Your task to perform on an android device: Show the shopping cart on costco.com. Add duracell triple a to the cart on costco.com Image 0: 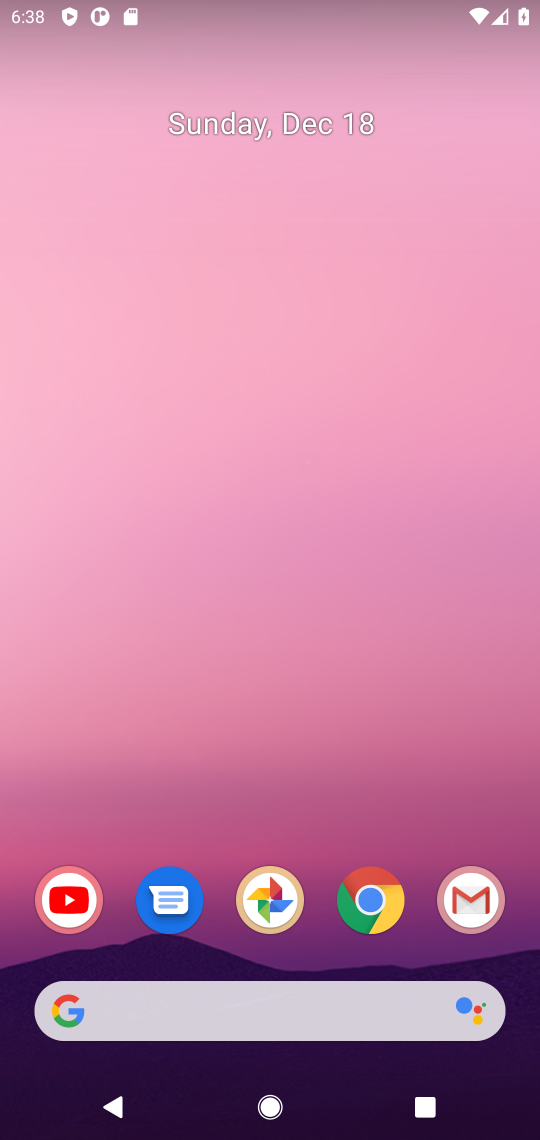
Step 0: click (373, 896)
Your task to perform on an android device: Show the shopping cart on costco.com. Add duracell triple a to the cart on costco.com Image 1: 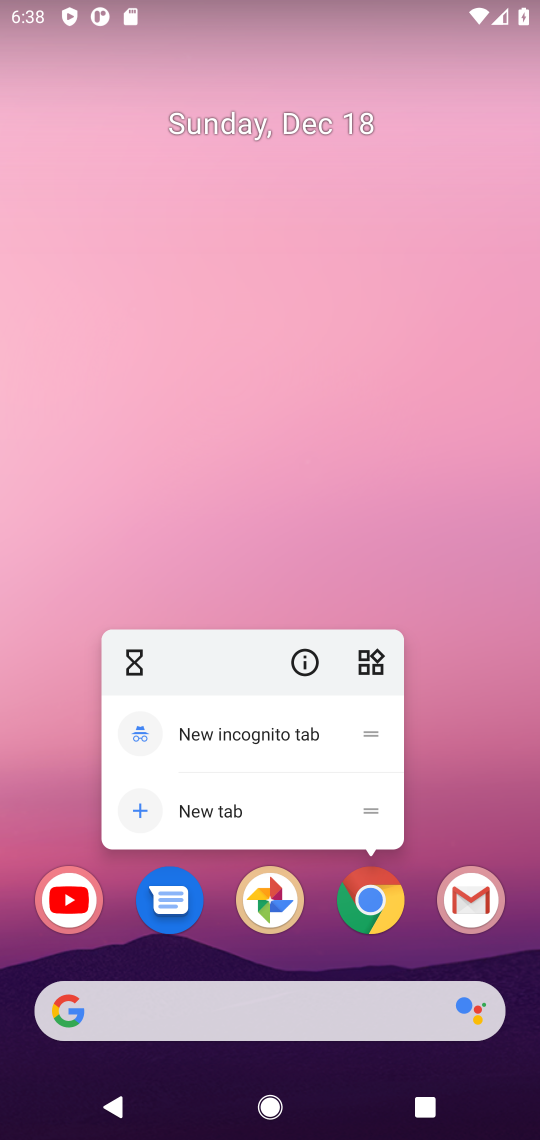
Step 1: click (371, 911)
Your task to perform on an android device: Show the shopping cart on costco.com. Add duracell triple a to the cart on costco.com Image 2: 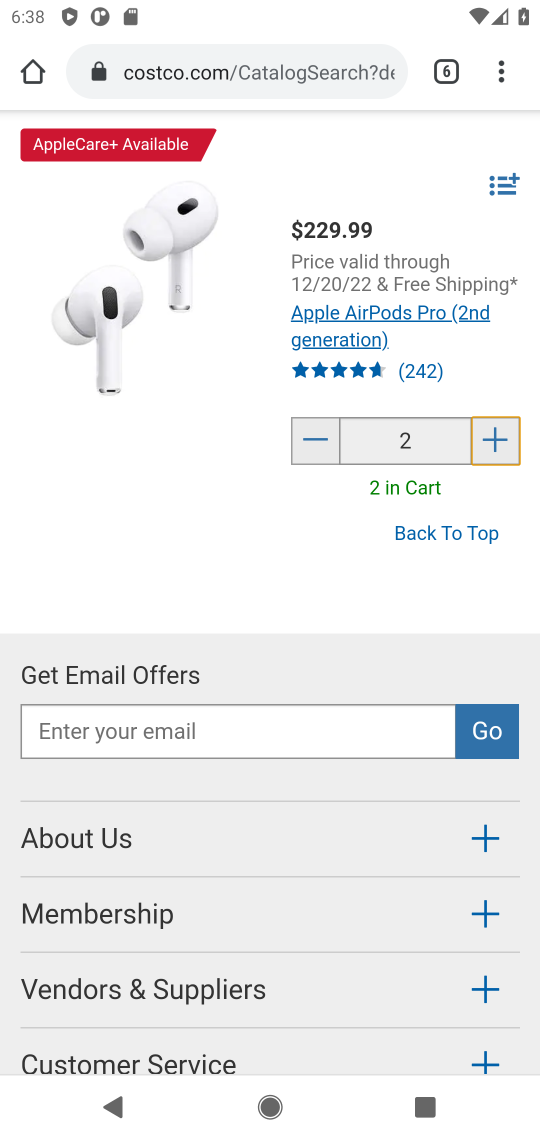
Step 2: drag from (362, 164) to (434, 690)
Your task to perform on an android device: Show the shopping cart on costco.com. Add duracell triple a to the cart on costco.com Image 3: 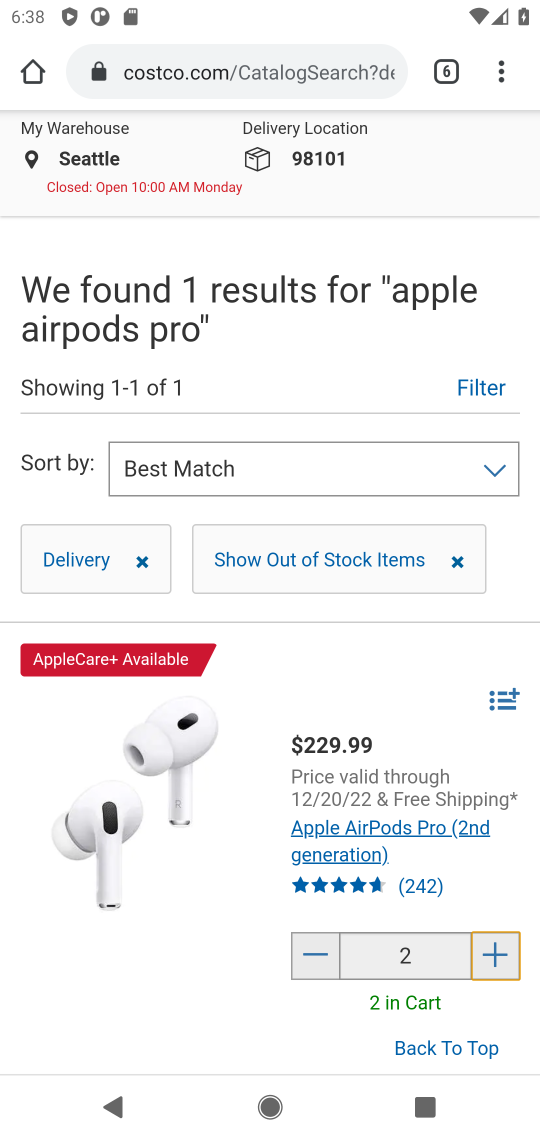
Step 3: drag from (446, 177) to (399, 580)
Your task to perform on an android device: Show the shopping cart on costco.com. Add duracell triple a to the cart on costco.com Image 4: 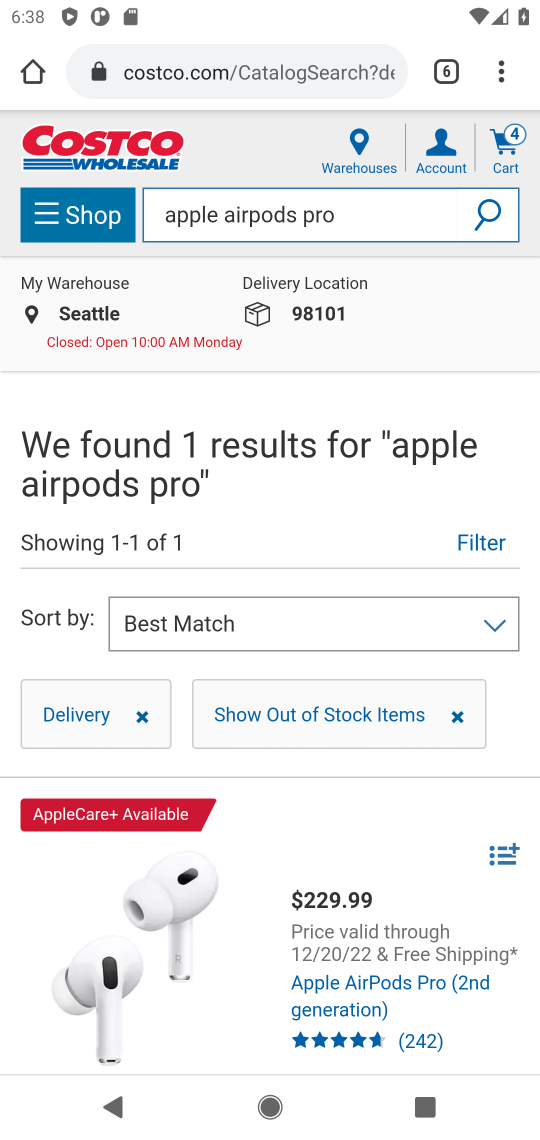
Step 4: click (504, 142)
Your task to perform on an android device: Show the shopping cart on costco.com. Add duracell triple a to the cart on costco.com Image 5: 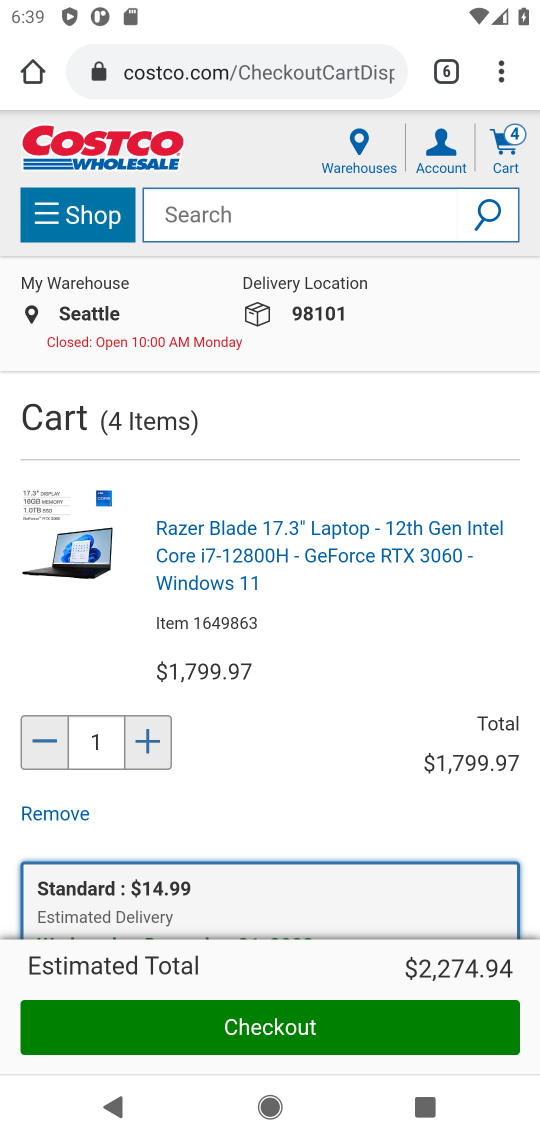
Step 5: click (224, 221)
Your task to perform on an android device: Show the shopping cart on costco.com. Add duracell triple a to the cart on costco.com Image 6: 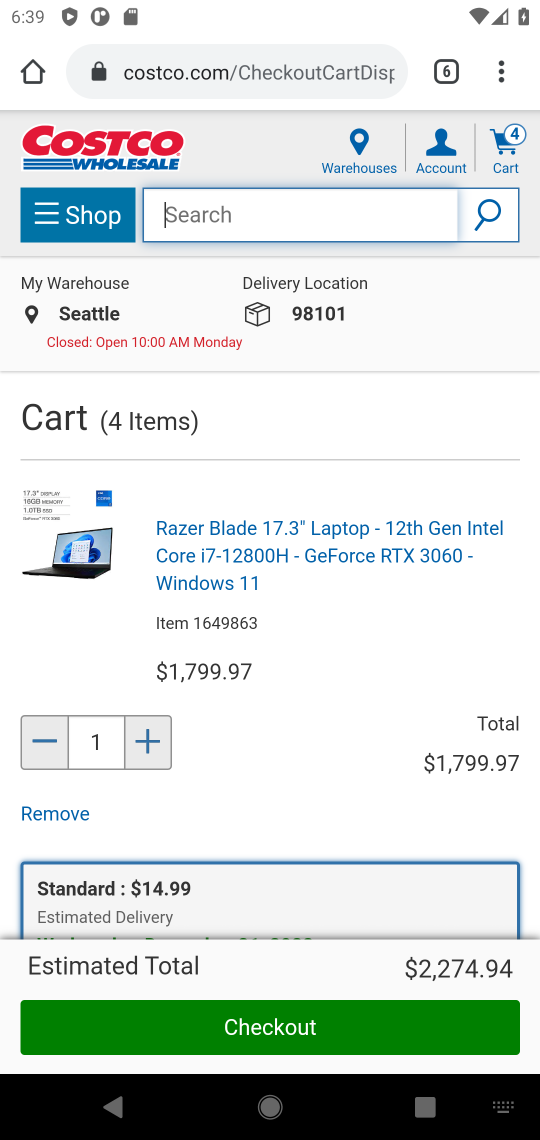
Step 6: type "duracell triple a"
Your task to perform on an android device: Show the shopping cart on costco.com. Add duracell triple a to the cart on costco.com Image 7: 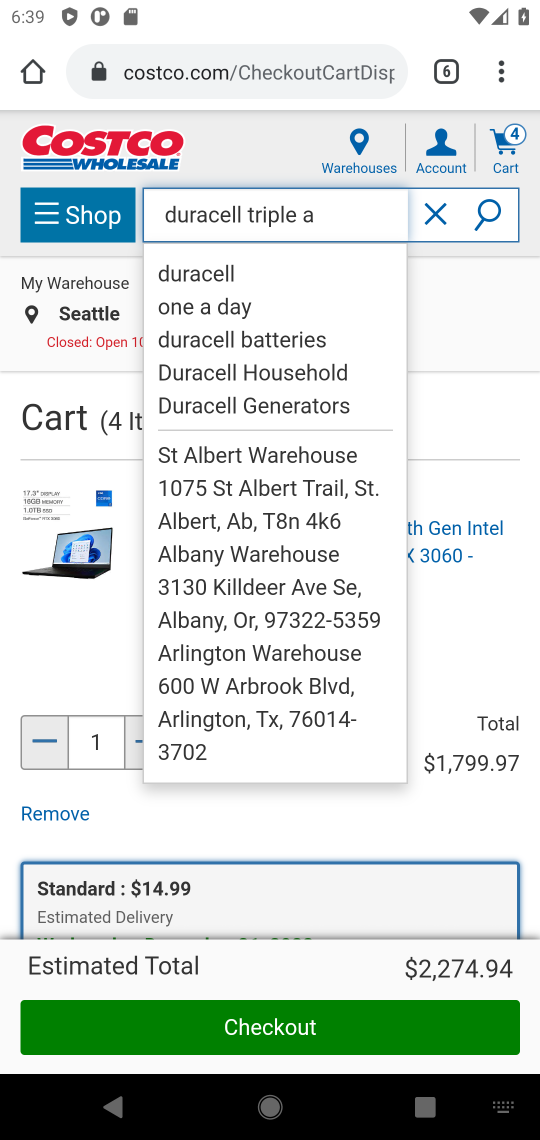
Step 7: click (485, 210)
Your task to perform on an android device: Show the shopping cart on costco.com. Add duracell triple a to the cart on costco.com Image 8: 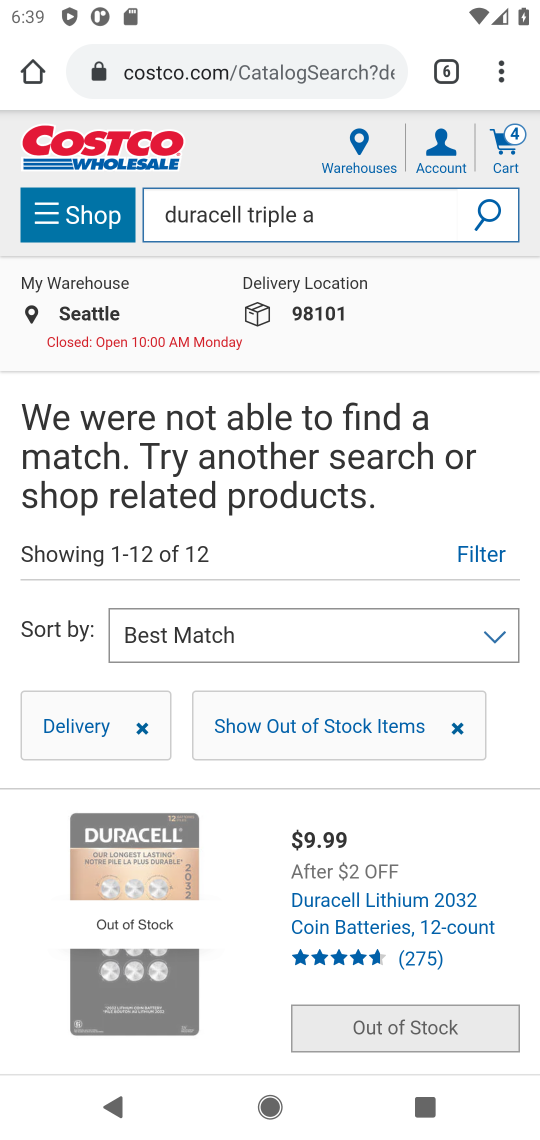
Step 8: drag from (477, 947) to (476, 393)
Your task to perform on an android device: Show the shopping cart on costco.com. Add duracell triple a to the cart on costco.com Image 9: 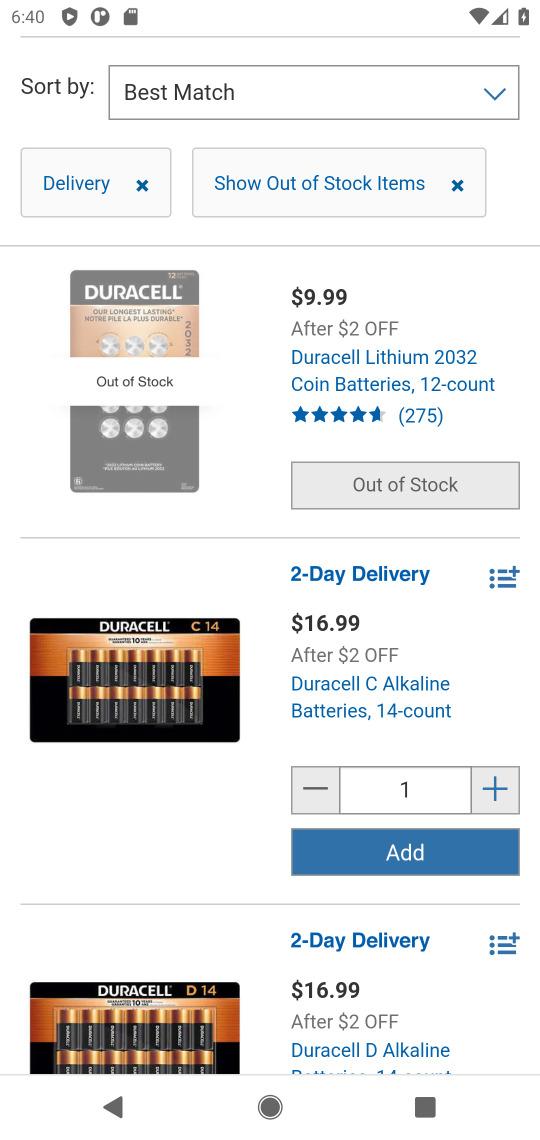
Step 9: drag from (432, 728) to (528, 376)
Your task to perform on an android device: Show the shopping cart on costco.com. Add duracell triple a to the cart on costco.com Image 10: 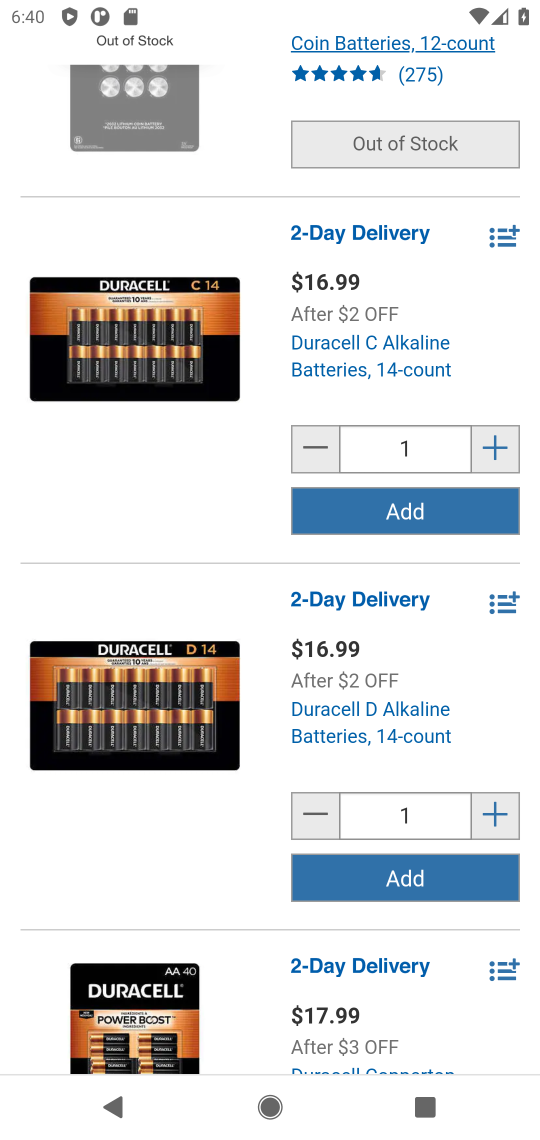
Step 10: drag from (476, 788) to (263, 1078)
Your task to perform on an android device: Show the shopping cart on costco.com. Add duracell triple a to the cart on costco.com Image 11: 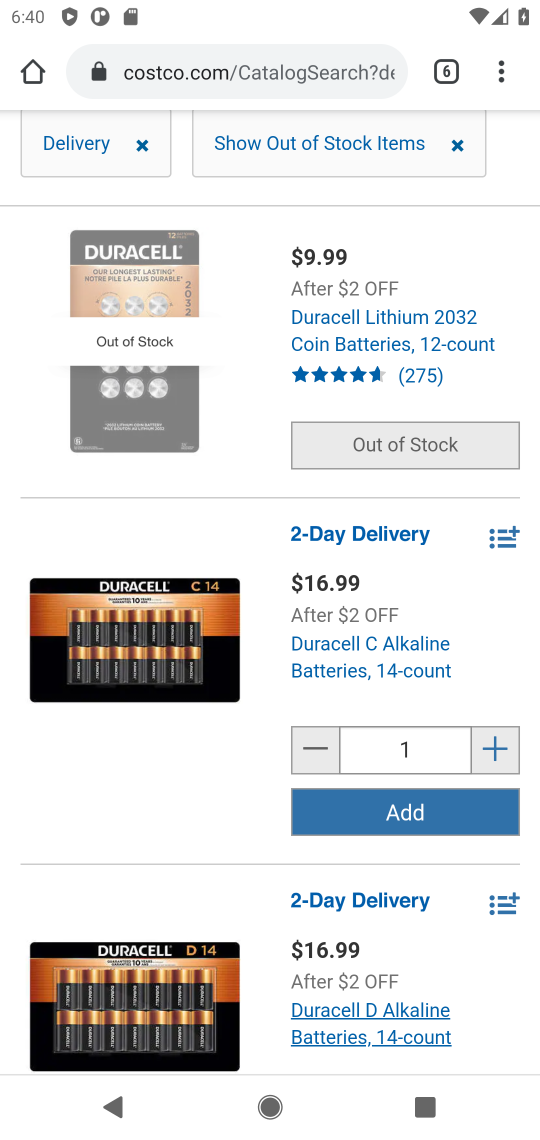
Step 11: click (401, 812)
Your task to perform on an android device: Show the shopping cart on costco.com. Add duracell triple a to the cart on costco.com Image 12: 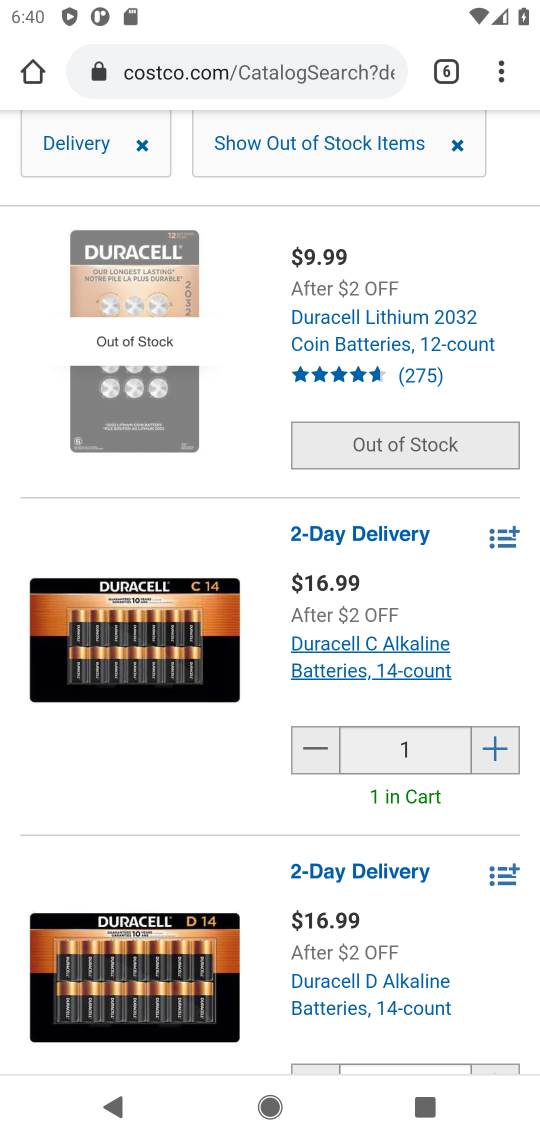
Step 12: task complete